Your task to perform on an android device: Open ESPN.com Image 0: 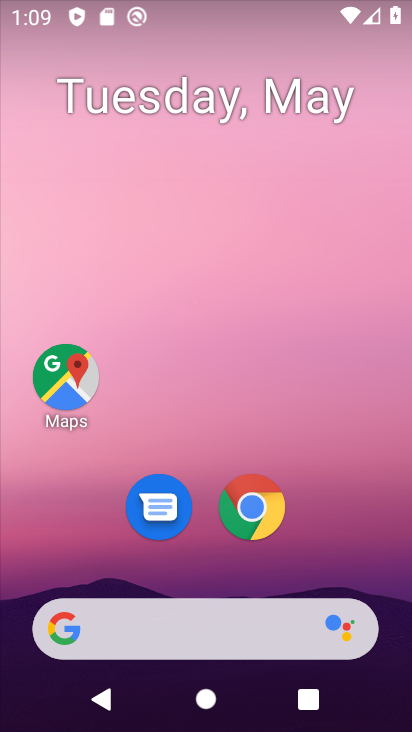
Step 0: drag from (381, 544) to (286, 56)
Your task to perform on an android device: Open ESPN.com Image 1: 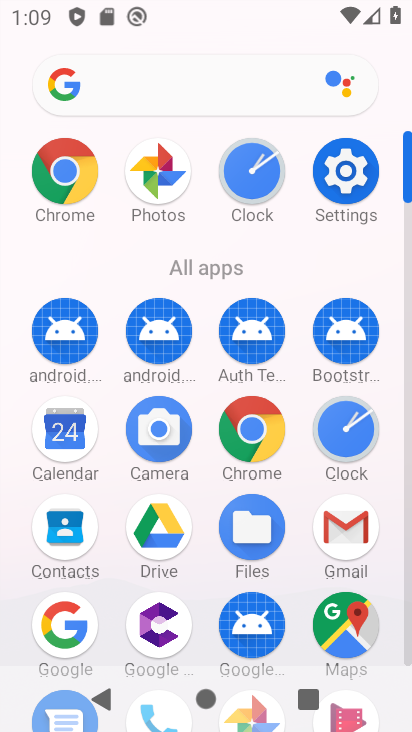
Step 1: click (57, 188)
Your task to perform on an android device: Open ESPN.com Image 2: 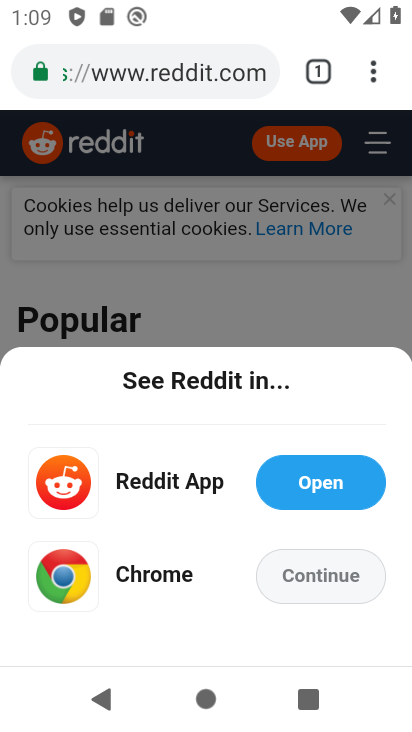
Step 2: click (172, 74)
Your task to perform on an android device: Open ESPN.com Image 3: 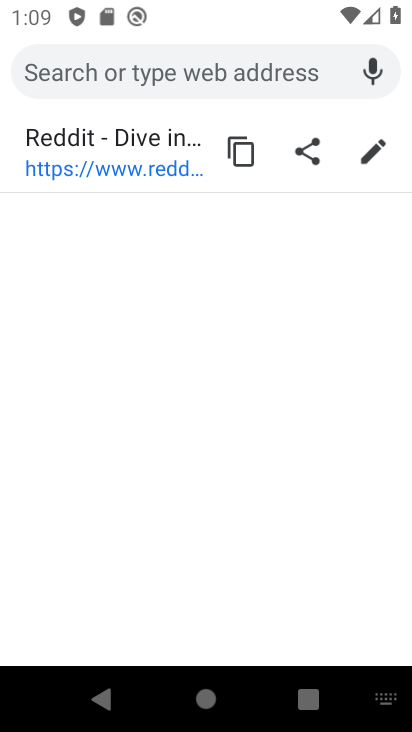
Step 3: type "espn.com"
Your task to perform on an android device: Open ESPN.com Image 4: 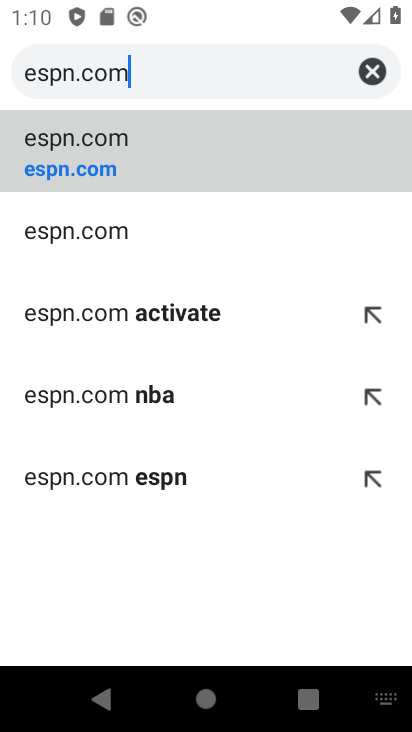
Step 4: click (72, 170)
Your task to perform on an android device: Open ESPN.com Image 5: 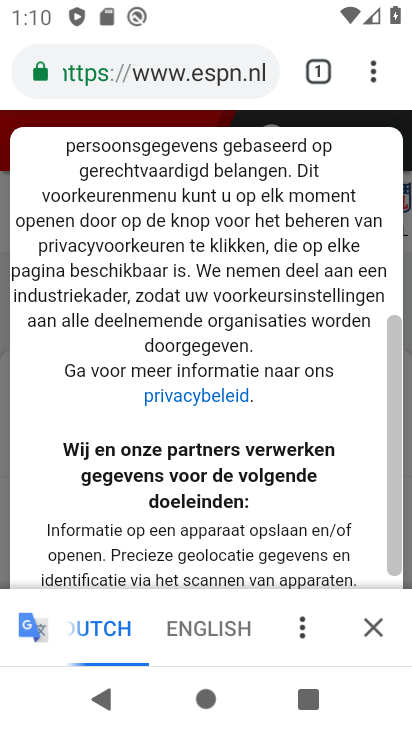
Step 5: drag from (218, 516) to (179, 146)
Your task to perform on an android device: Open ESPN.com Image 6: 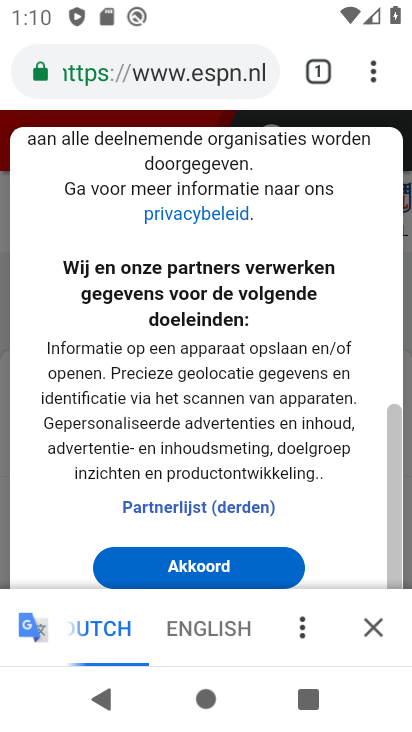
Step 6: click (235, 569)
Your task to perform on an android device: Open ESPN.com Image 7: 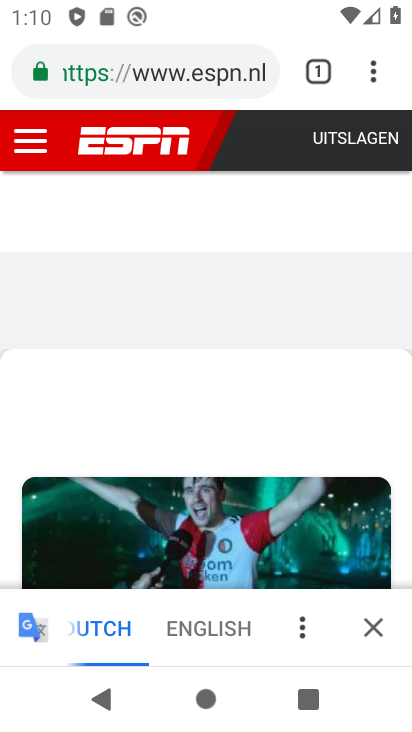
Step 7: task complete